Your task to perform on an android device: check out phone information Image 0: 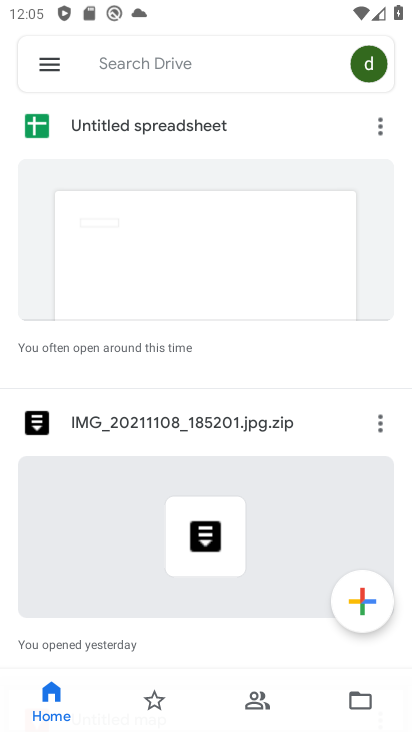
Step 0: press home button
Your task to perform on an android device: check out phone information Image 1: 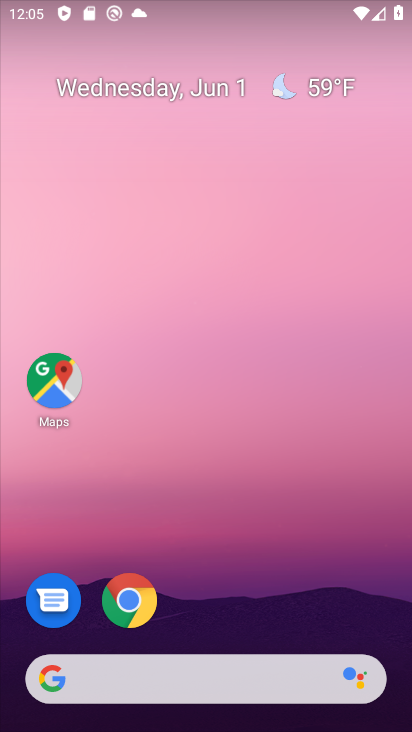
Step 1: drag from (184, 623) to (287, 32)
Your task to perform on an android device: check out phone information Image 2: 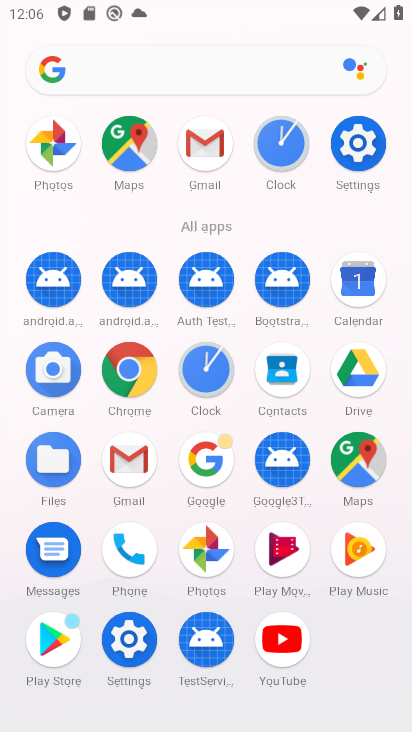
Step 2: click (144, 689)
Your task to perform on an android device: check out phone information Image 3: 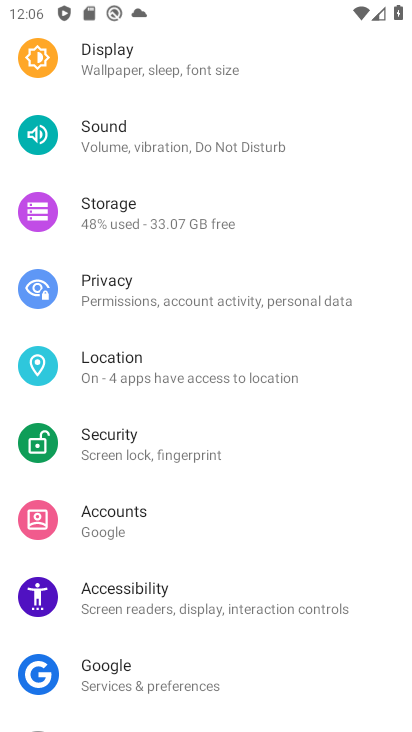
Step 3: click (149, 640)
Your task to perform on an android device: check out phone information Image 4: 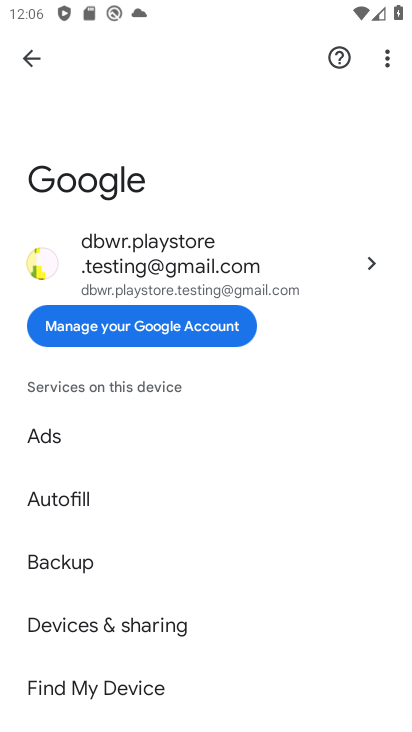
Step 4: task complete